Your task to perform on an android device: Search for sushi restaurants on Maps Image 0: 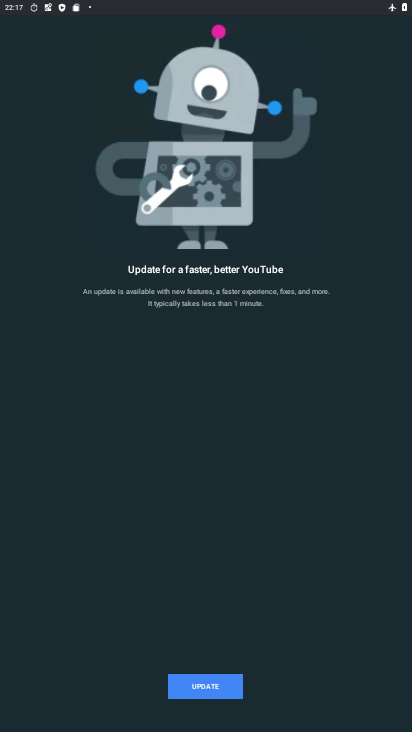
Step 0: press home button
Your task to perform on an android device: Search for sushi restaurants on Maps Image 1: 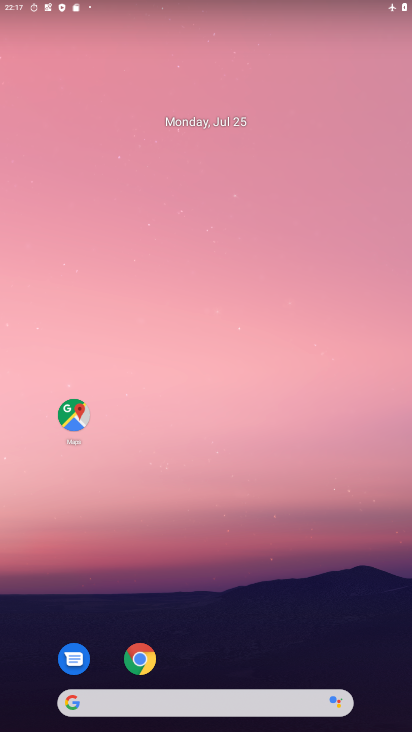
Step 1: click (66, 419)
Your task to perform on an android device: Search for sushi restaurants on Maps Image 2: 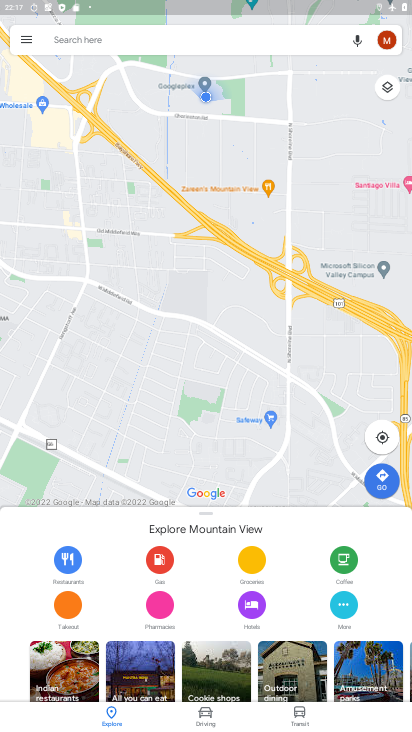
Step 2: click (314, 34)
Your task to perform on an android device: Search for sushi restaurants on Maps Image 3: 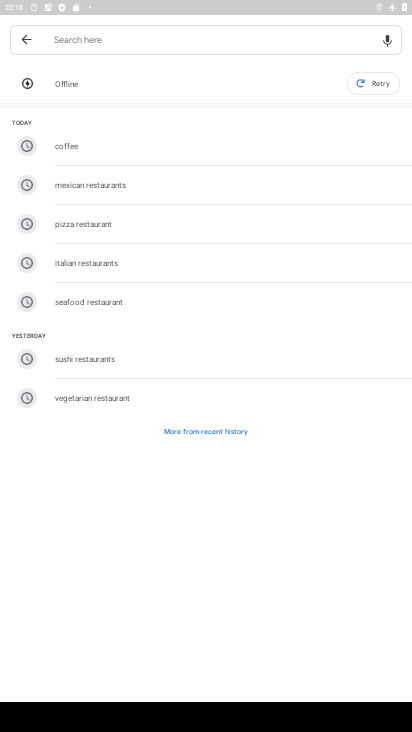
Step 3: type "sushi restaurants"
Your task to perform on an android device: Search for sushi restaurants on Maps Image 4: 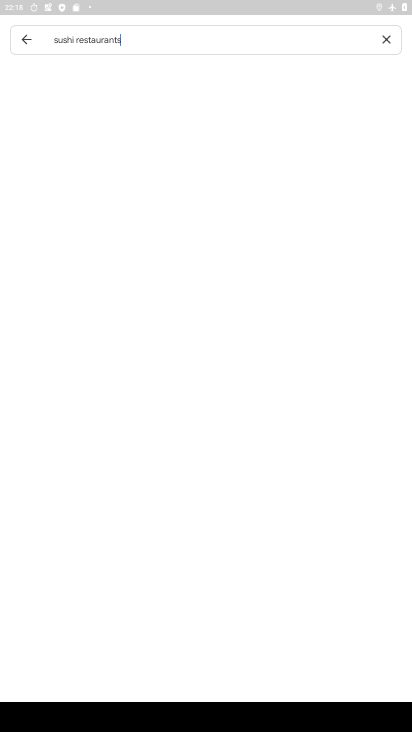
Step 4: type ""
Your task to perform on an android device: Search for sushi restaurants on Maps Image 5: 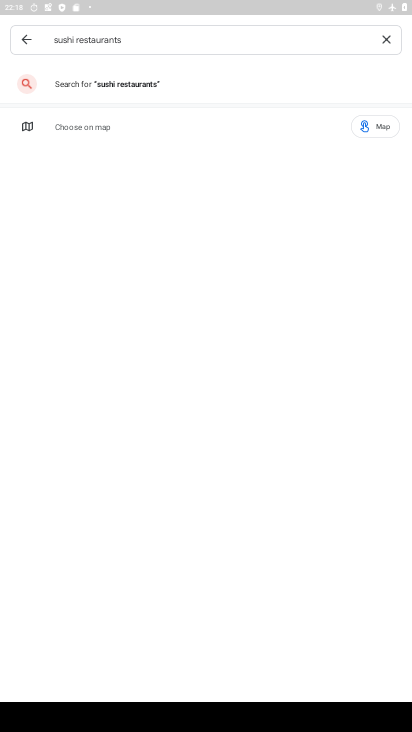
Step 5: click (98, 85)
Your task to perform on an android device: Search for sushi restaurants on Maps Image 6: 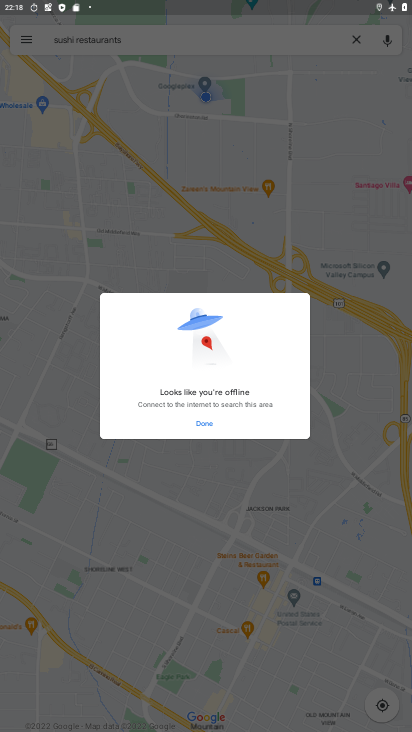
Step 6: task complete